Your task to perform on an android device: Open Reddit.com Image 0: 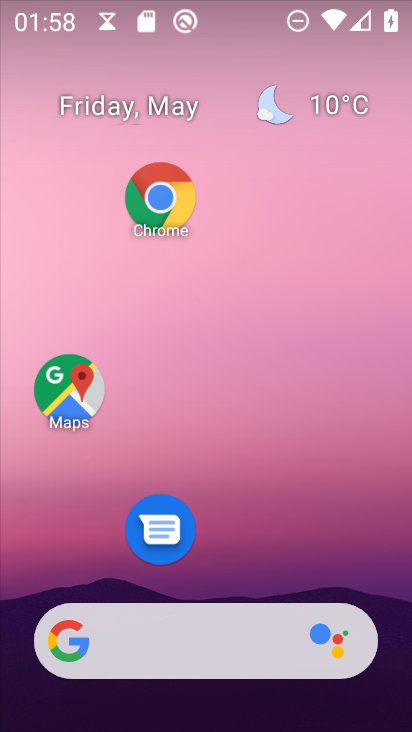
Step 0: drag from (288, 671) to (230, 256)
Your task to perform on an android device: Open Reddit.com Image 1: 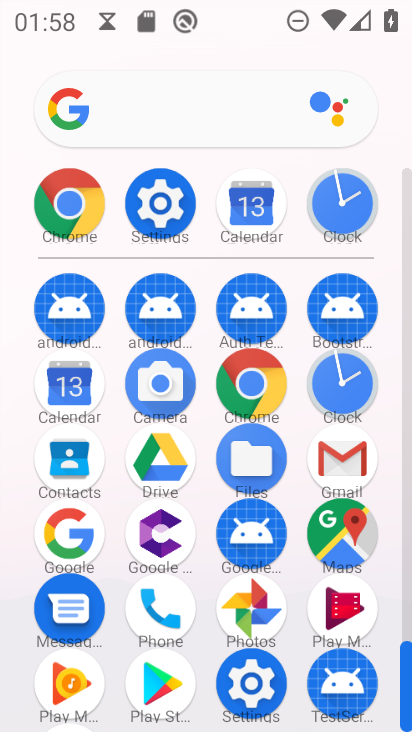
Step 1: click (72, 181)
Your task to perform on an android device: Open Reddit.com Image 2: 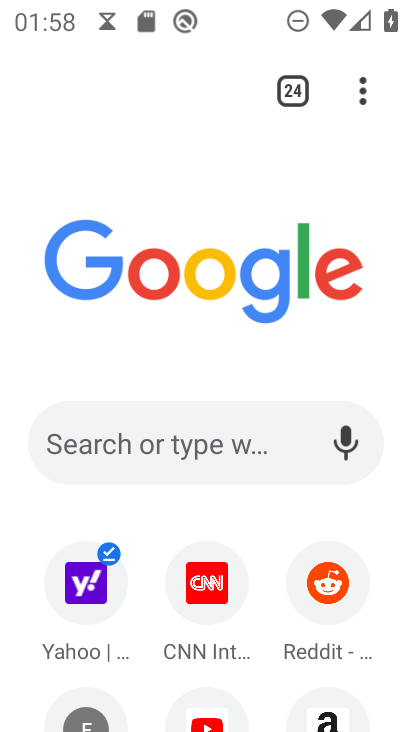
Step 2: click (328, 590)
Your task to perform on an android device: Open Reddit.com Image 3: 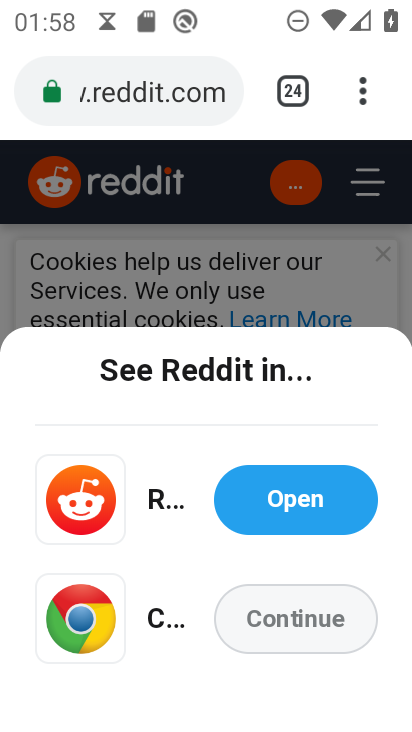
Step 3: task complete